Your task to perform on an android device: turn on data saver in the chrome app Image 0: 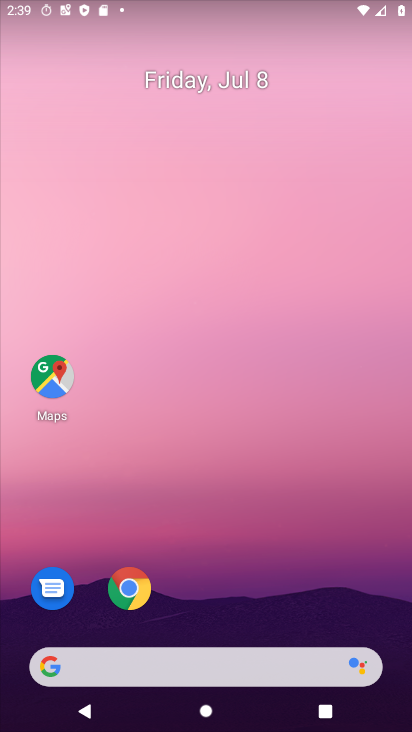
Step 0: press home button
Your task to perform on an android device: turn on data saver in the chrome app Image 1: 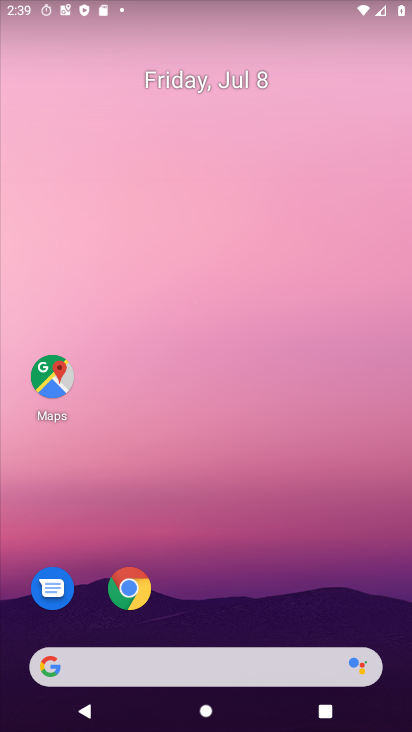
Step 1: drag from (254, 616) to (338, 116)
Your task to perform on an android device: turn on data saver in the chrome app Image 2: 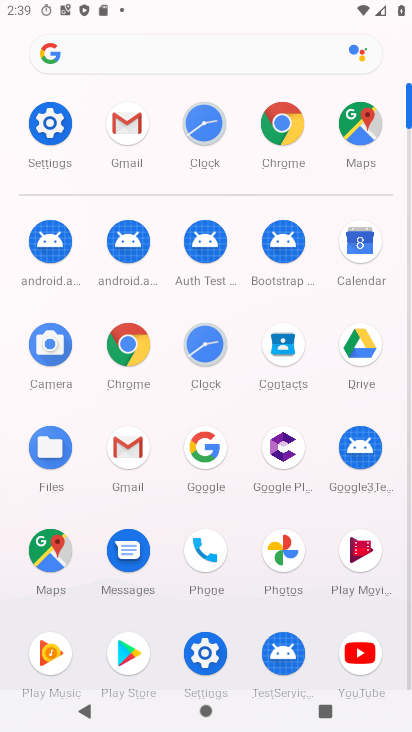
Step 2: click (286, 128)
Your task to perform on an android device: turn on data saver in the chrome app Image 3: 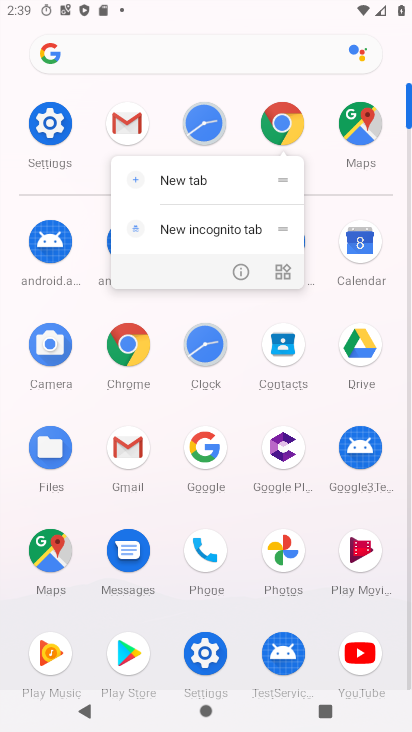
Step 3: click (286, 128)
Your task to perform on an android device: turn on data saver in the chrome app Image 4: 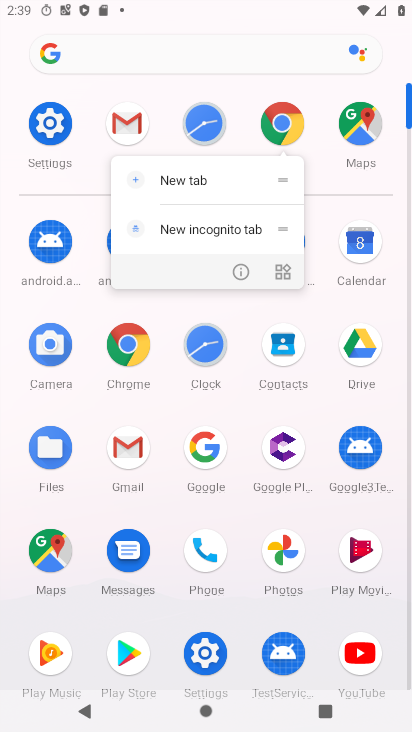
Step 4: click (286, 128)
Your task to perform on an android device: turn on data saver in the chrome app Image 5: 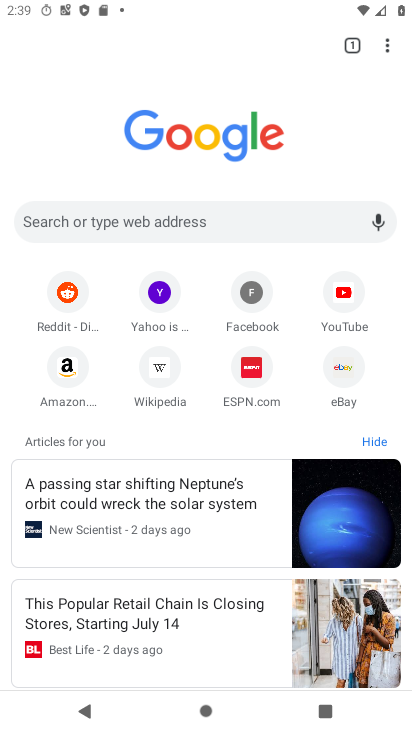
Step 5: drag from (388, 43) to (250, 381)
Your task to perform on an android device: turn on data saver in the chrome app Image 6: 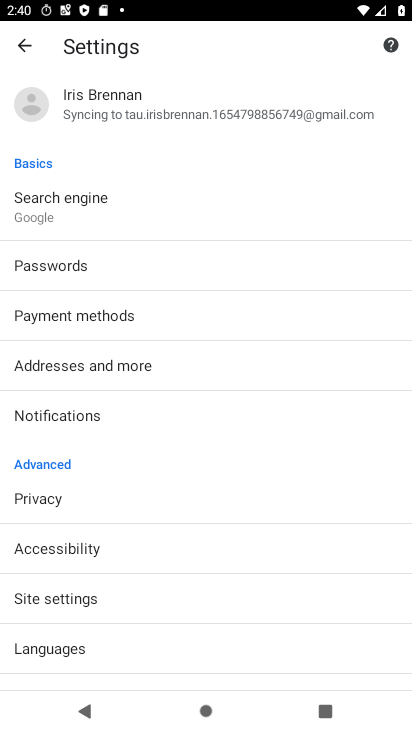
Step 6: drag from (220, 574) to (289, 258)
Your task to perform on an android device: turn on data saver in the chrome app Image 7: 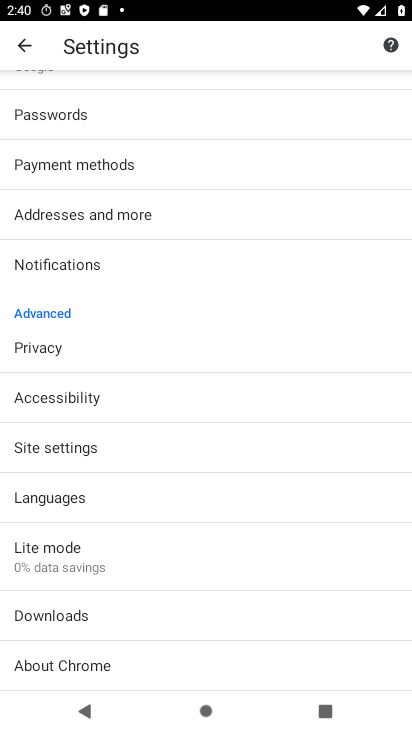
Step 7: click (59, 559)
Your task to perform on an android device: turn on data saver in the chrome app Image 8: 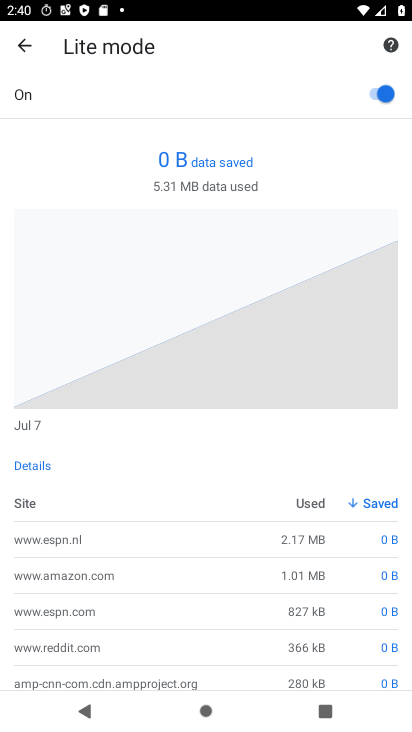
Step 8: task complete